Your task to perform on an android device: Go to ESPN.com Image 0: 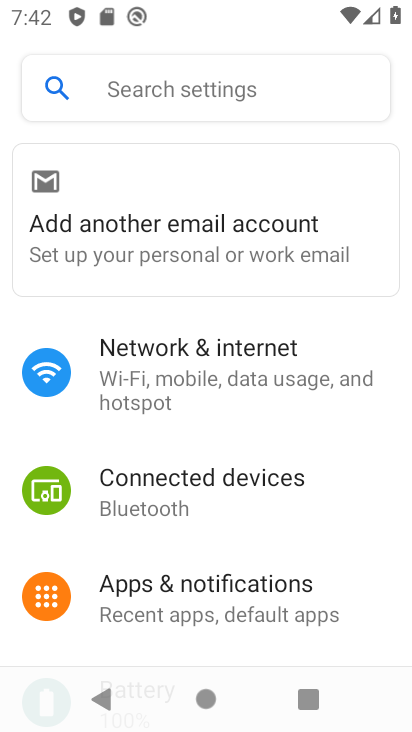
Step 0: press back button
Your task to perform on an android device: Go to ESPN.com Image 1: 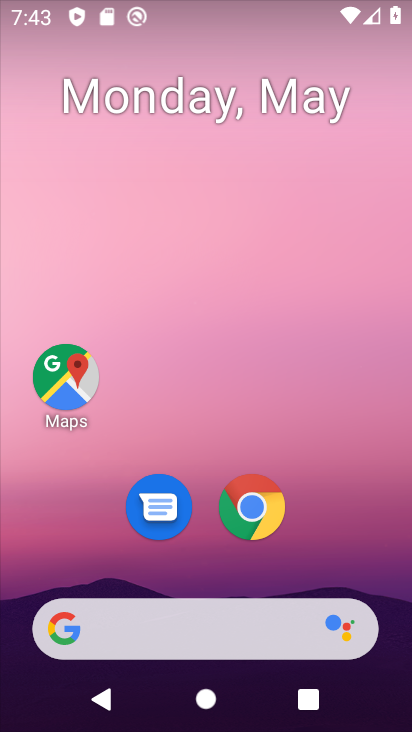
Step 1: drag from (274, 670) to (196, 233)
Your task to perform on an android device: Go to ESPN.com Image 2: 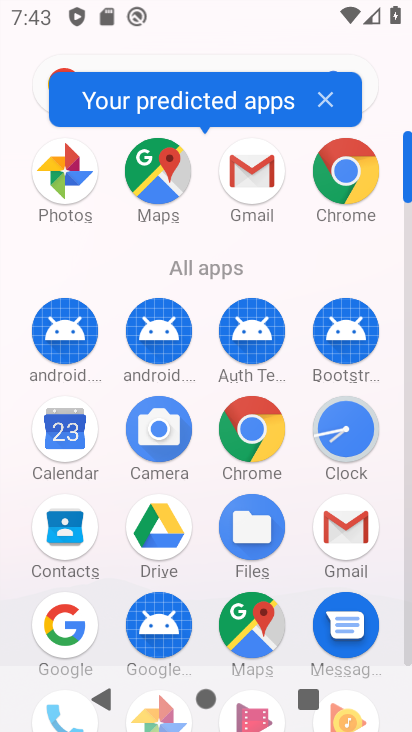
Step 2: click (232, 75)
Your task to perform on an android device: Go to ESPN.com Image 3: 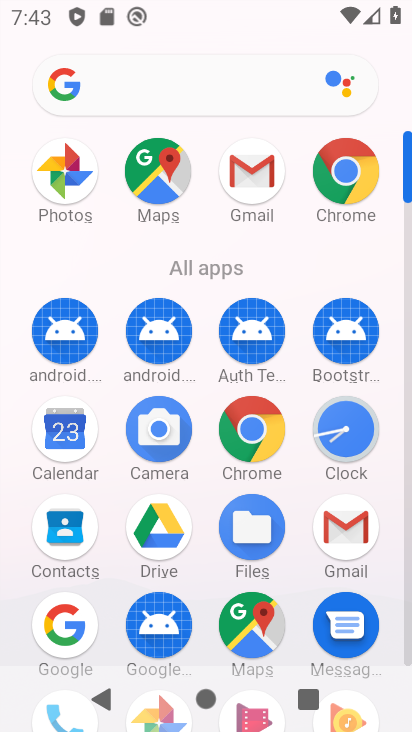
Step 3: drag from (255, 313) to (255, 135)
Your task to perform on an android device: Go to ESPN.com Image 4: 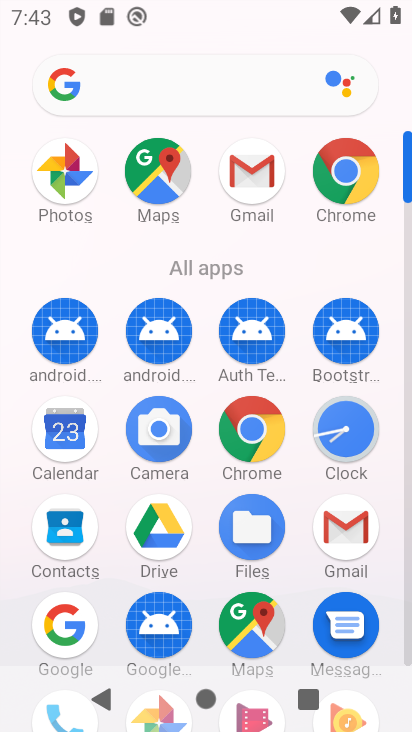
Step 4: drag from (240, 551) to (225, 41)
Your task to perform on an android device: Go to ESPN.com Image 5: 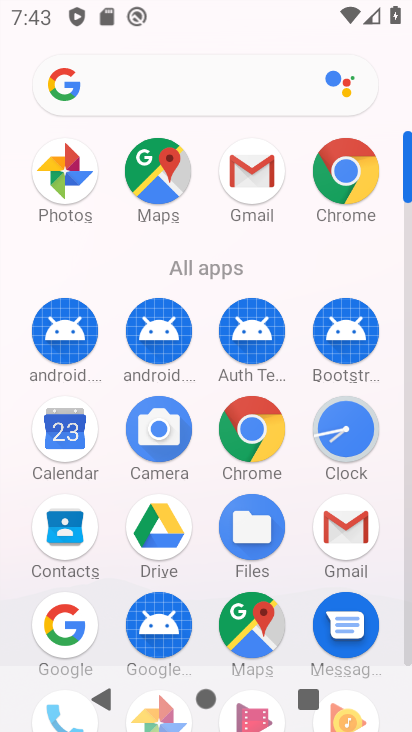
Step 5: drag from (177, 170) to (228, 6)
Your task to perform on an android device: Go to ESPN.com Image 6: 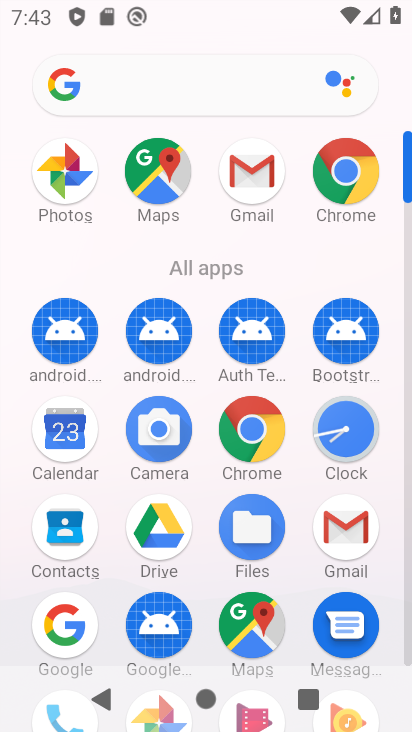
Step 6: click (345, 175)
Your task to perform on an android device: Go to ESPN.com Image 7: 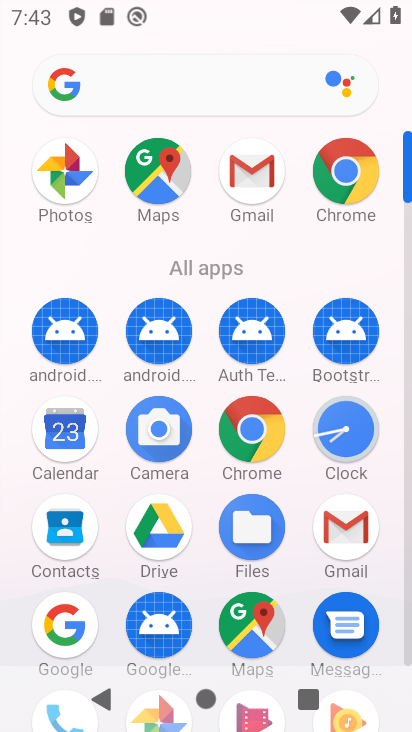
Step 7: click (346, 174)
Your task to perform on an android device: Go to ESPN.com Image 8: 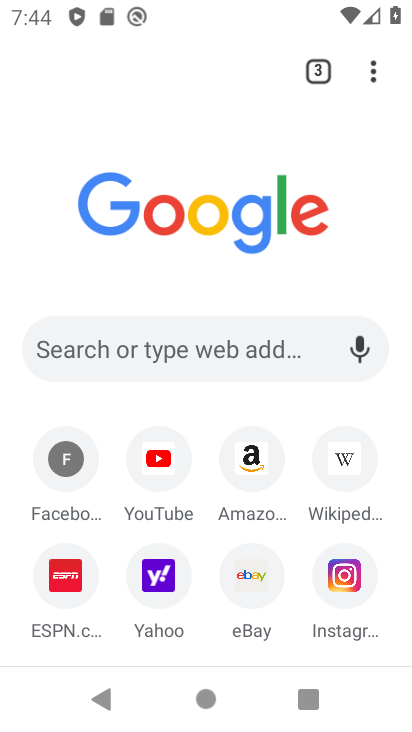
Step 8: click (379, 79)
Your task to perform on an android device: Go to ESPN.com Image 9: 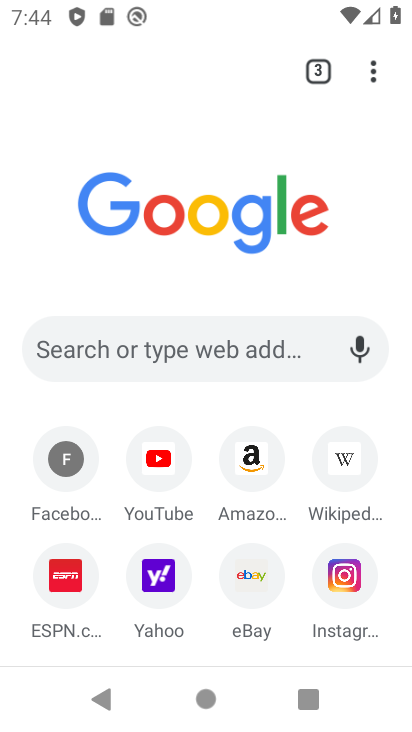
Step 9: click (67, 574)
Your task to perform on an android device: Go to ESPN.com Image 10: 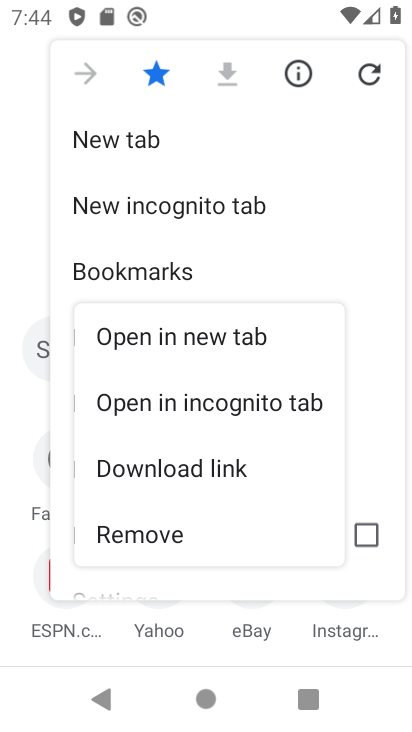
Step 10: click (68, 576)
Your task to perform on an android device: Go to ESPN.com Image 11: 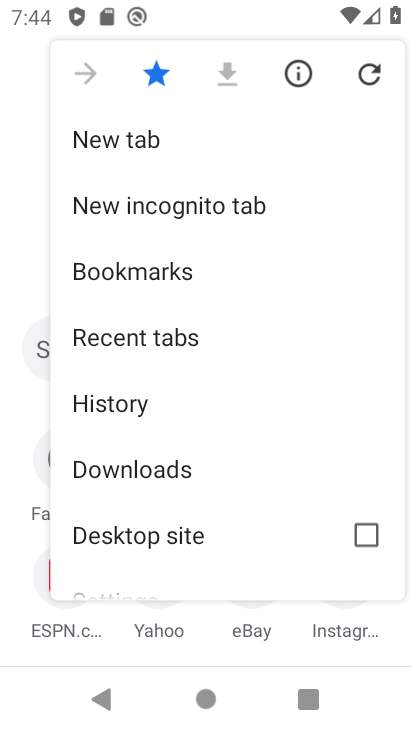
Step 11: click (160, 339)
Your task to perform on an android device: Go to ESPN.com Image 12: 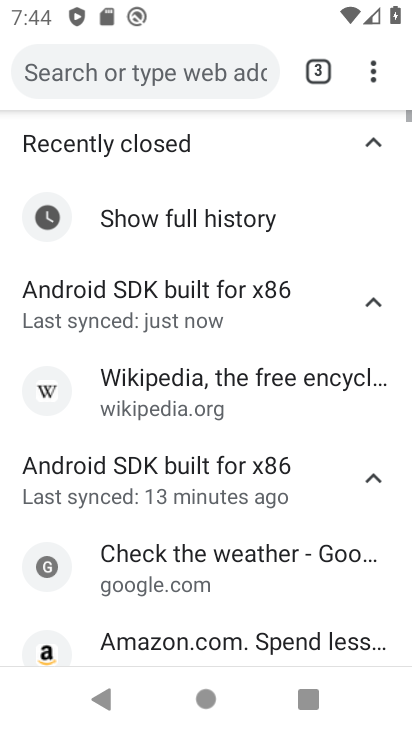
Step 12: click (124, 144)
Your task to perform on an android device: Go to ESPN.com Image 13: 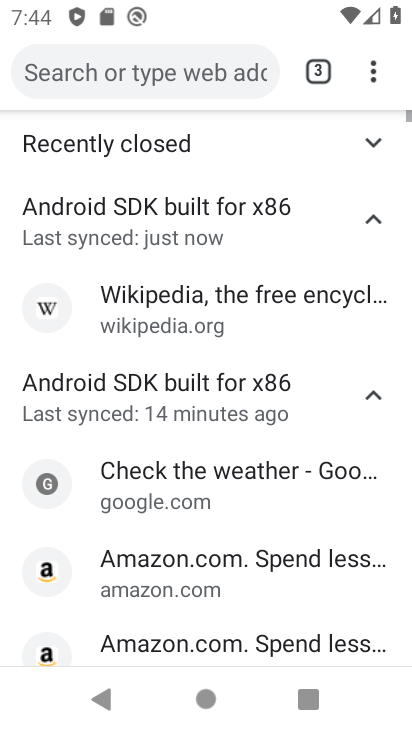
Step 13: click (124, 144)
Your task to perform on an android device: Go to ESPN.com Image 14: 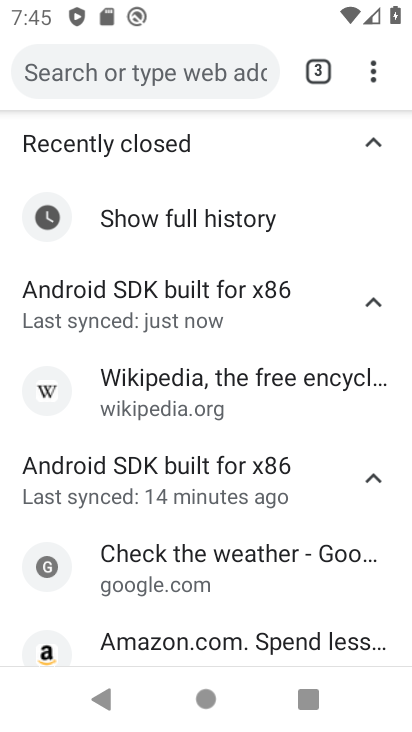
Step 14: task complete